Your task to perform on an android device: change the clock style Image 0: 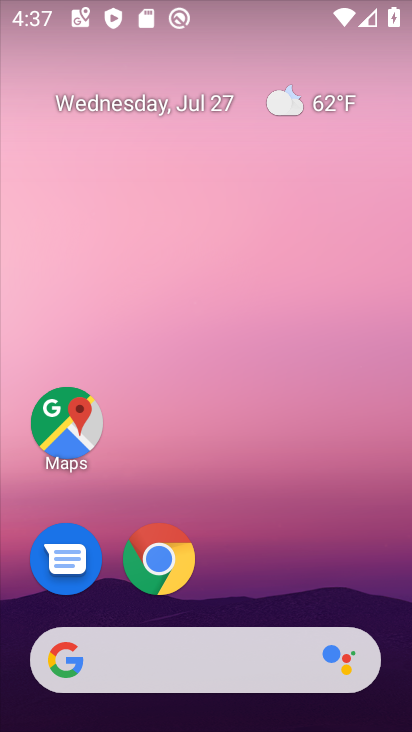
Step 0: drag from (245, 599) to (269, 7)
Your task to perform on an android device: change the clock style Image 1: 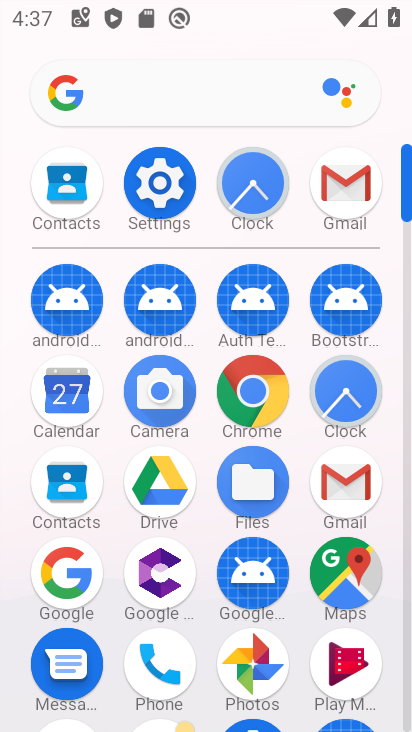
Step 1: click (348, 398)
Your task to perform on an android device: change the clock style Image 2: 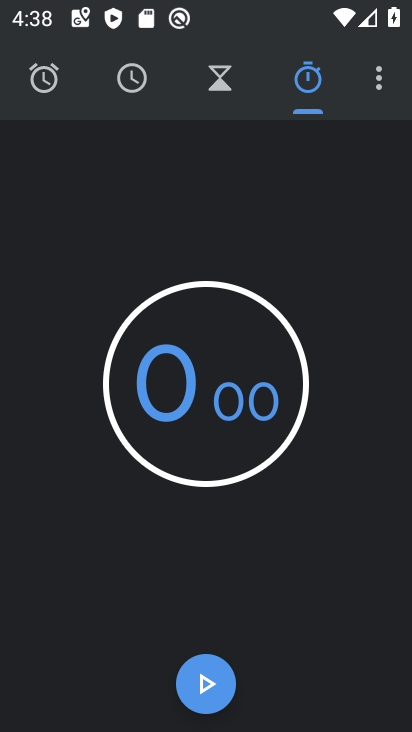
Step 2: click (377, 56)
Your task to perform on an android device: change the clock style Image 3: 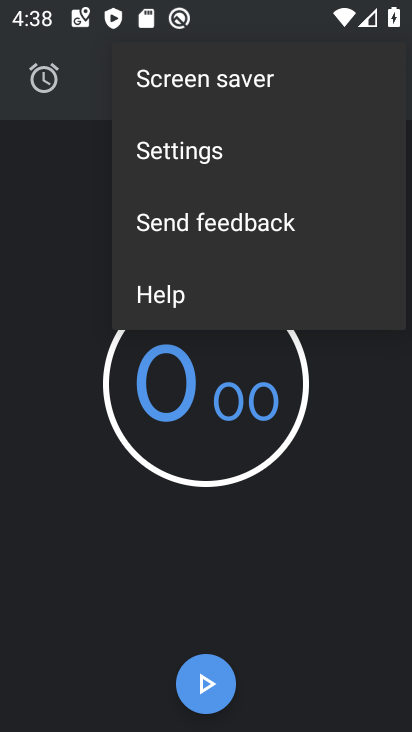
Step 3: click (207, 153)
Your task to perform on an android device: change the clock style Image 4: 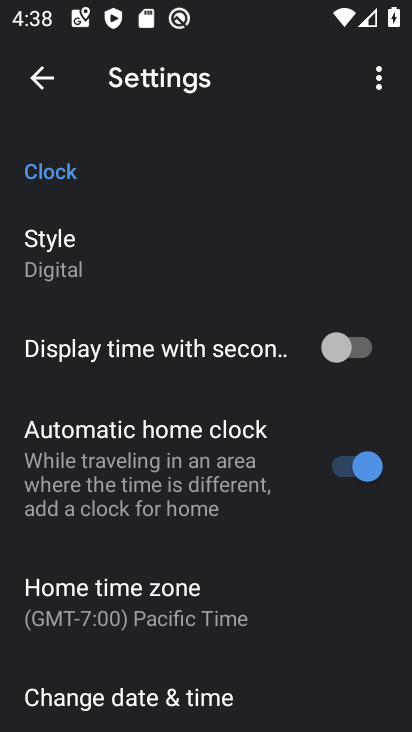
Step 4: click (98, 242)
Your task to perform on an android device: change the clock style Image 5: 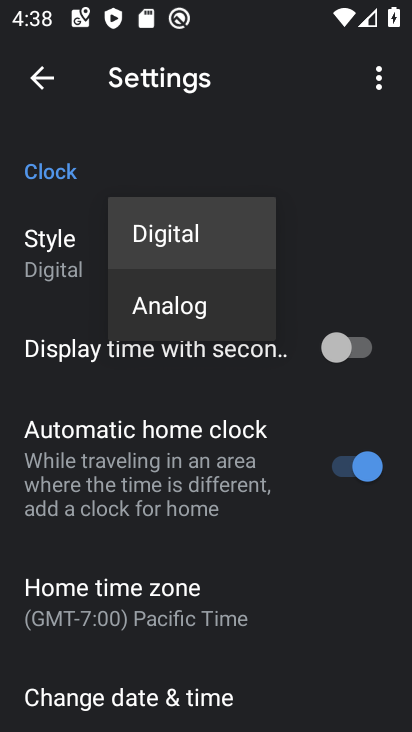
Step 5: click (152, 309)
Your task to perform on an android device: change the clock style Image 6: 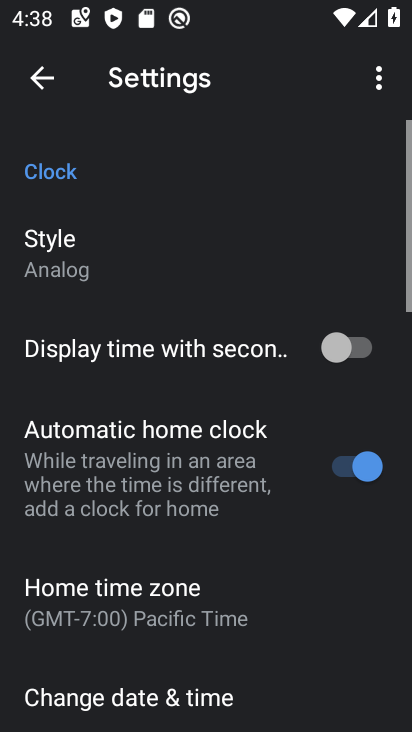
Step 6: task complete